Your task to perform on an android device: toggle wifi Image 0: 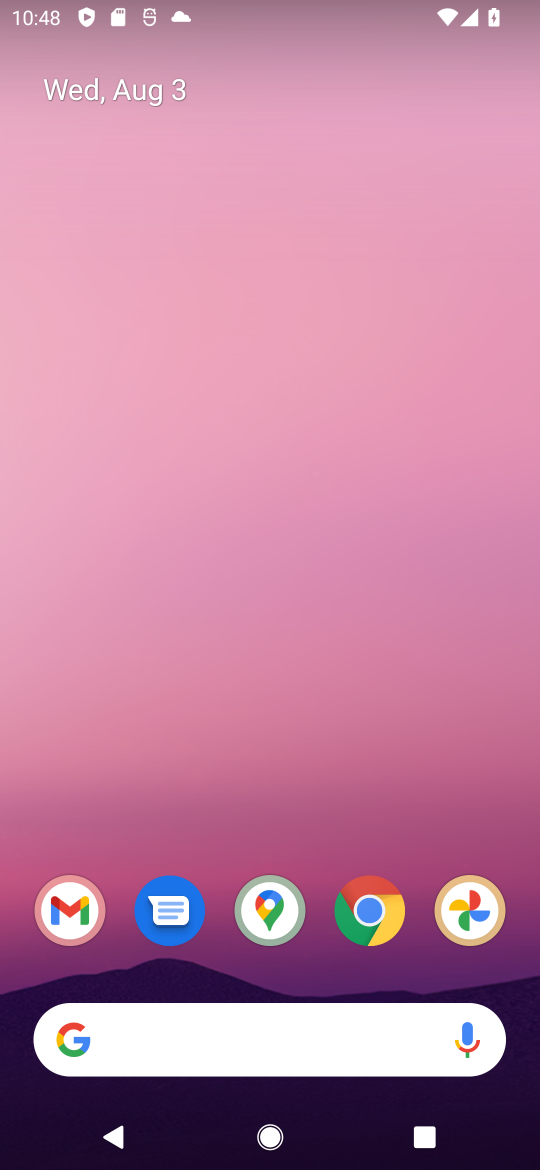
Step 0: press home button
Your task to perform on an android device: toggle wifi Image 1: 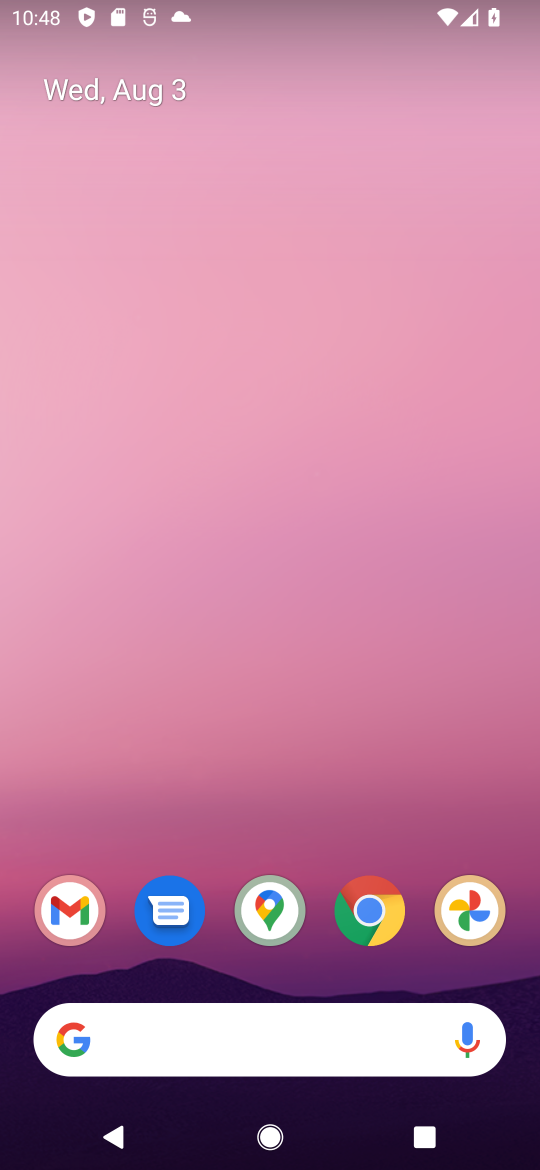
Step 1: press home button
Your task to perform on an android device: toggle wifi Image 2: 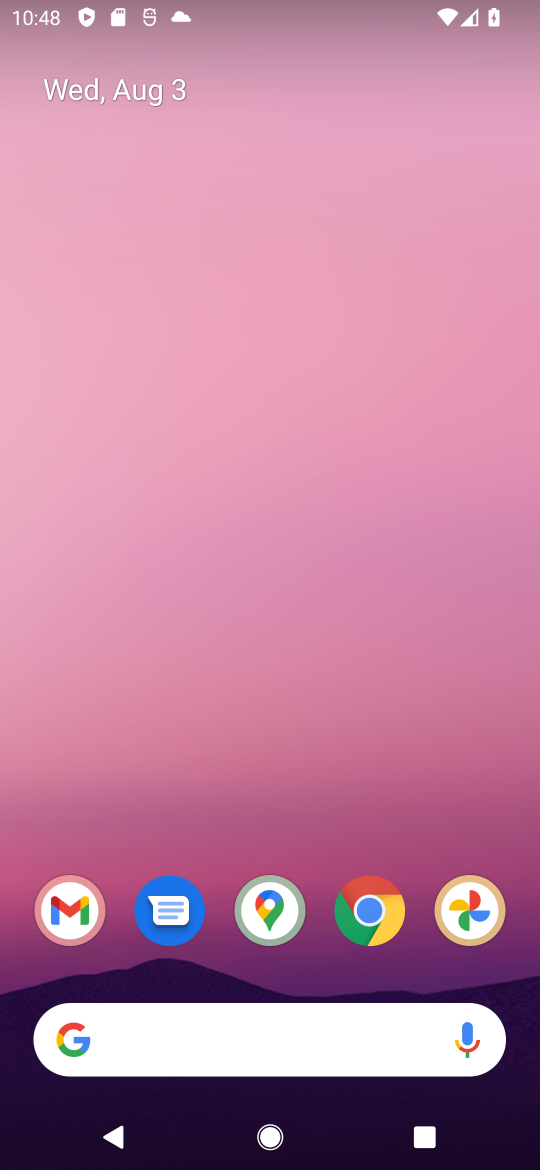
Step 2: drag from (337, 845) to (401, 48)
Your task to perform on an android device: toggle wifi Image 3: 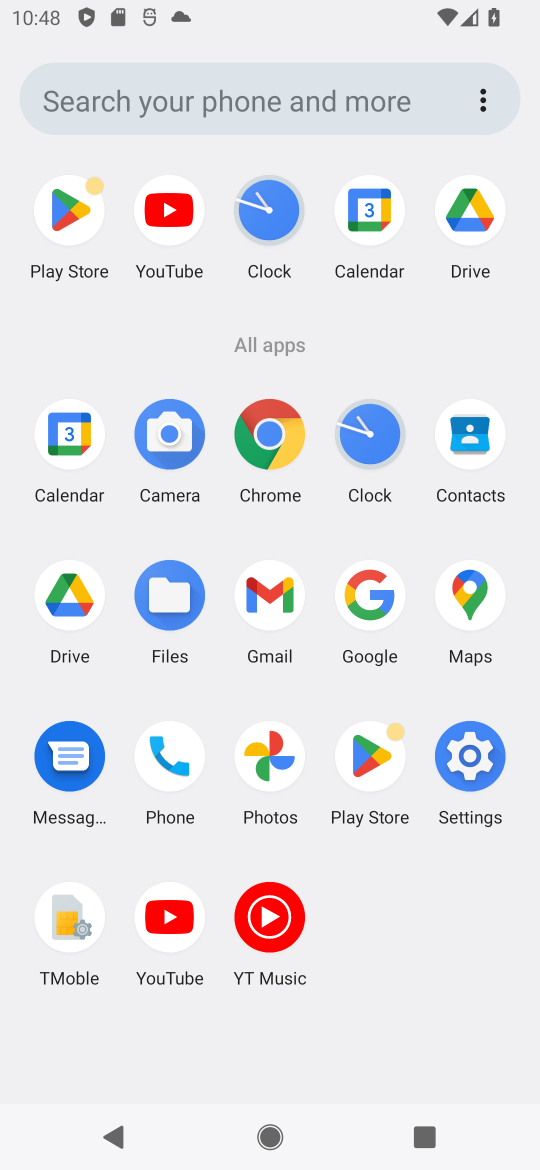
Step 3: click (467, 755)
Your task to perform on an android device: toggle wifi Image 4: 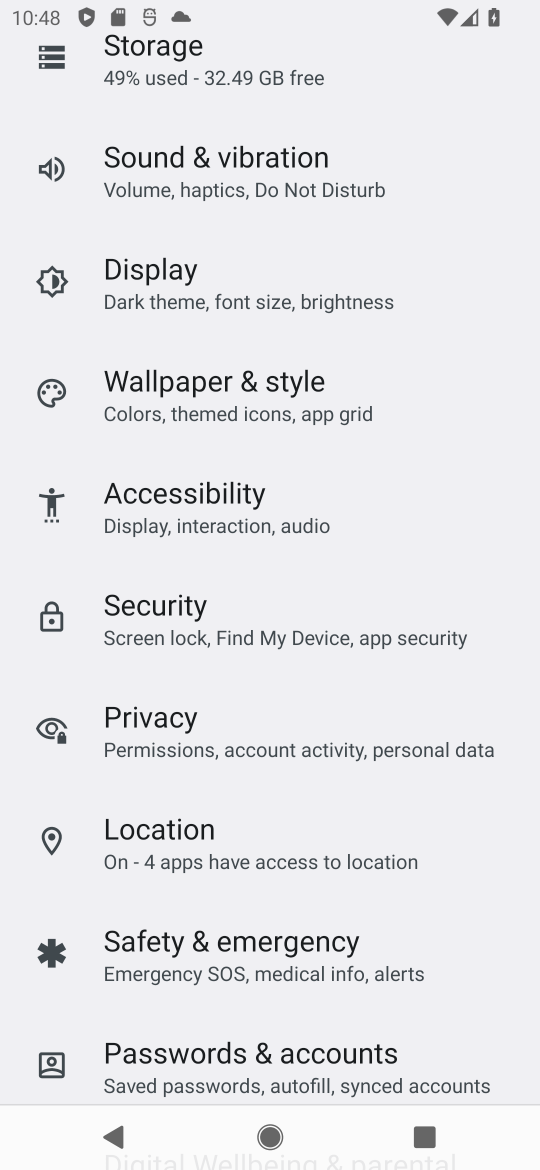
Step 4: drag from (213, 126) to (244, 1066)
Your task to perform on an android device: toggle wifi Image 5: 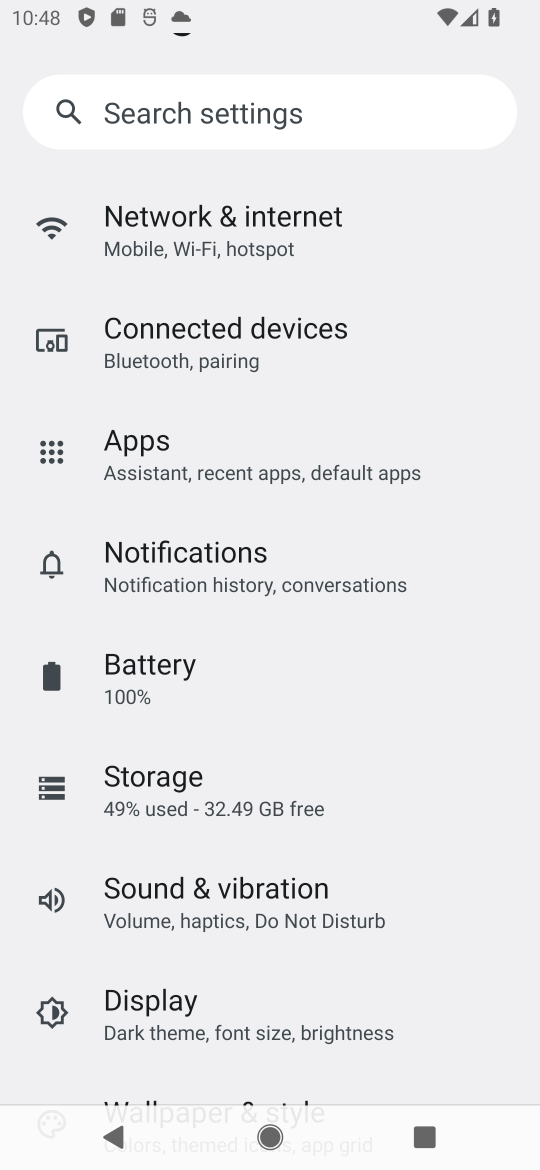
Step 5: click (211, 231)
Your task to perform on an android device: toggle wifi Image 6: 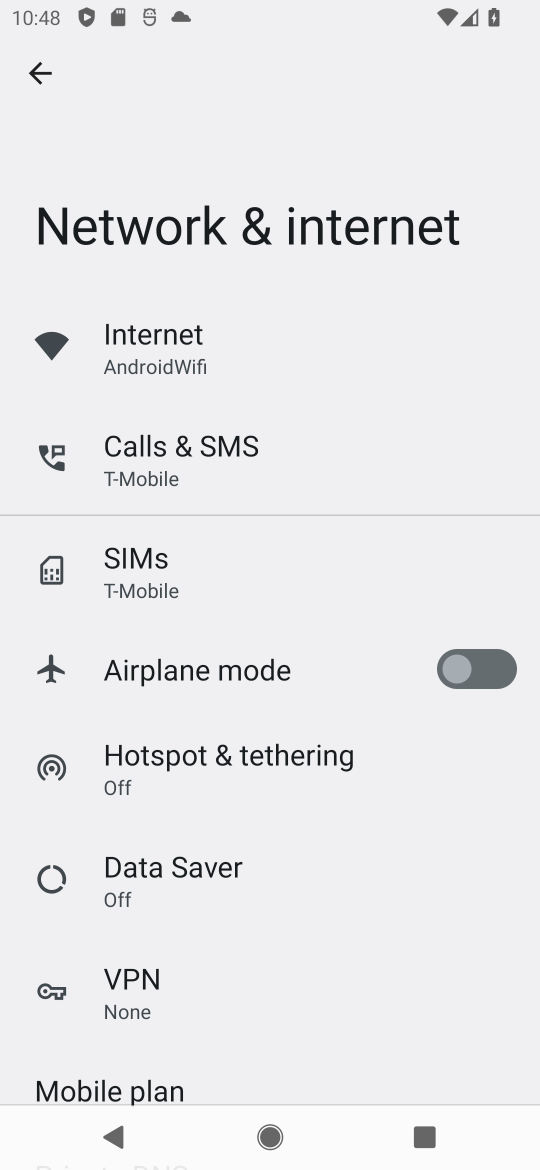
Step 6: click (213, 340)
Your task to perform on an android device: toggle wifi Image 7: 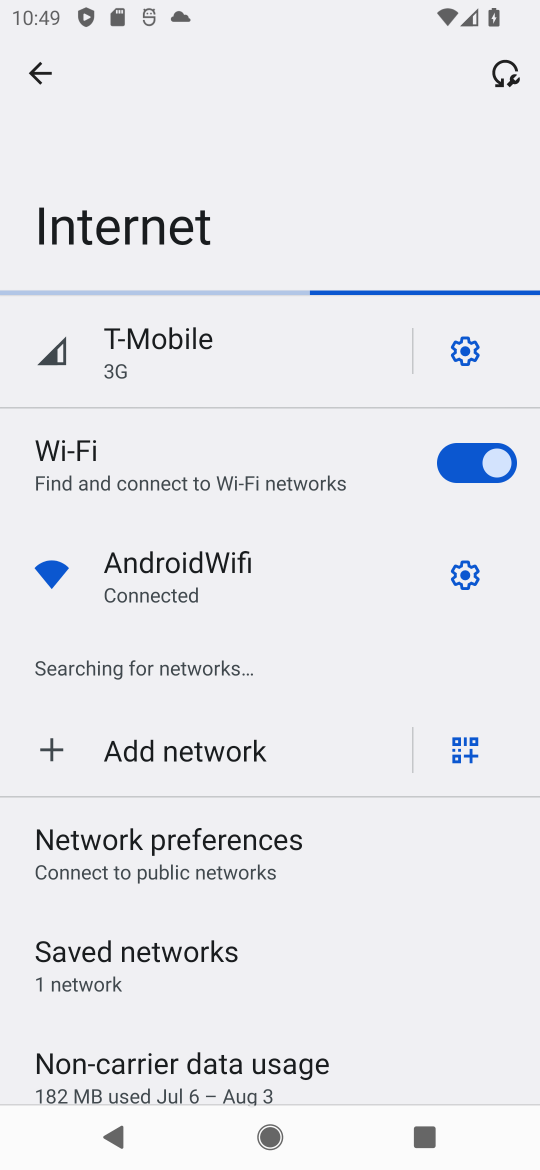
Step 7: task complete